Your task to perform on an android device: open chrome privacy settings Image 0: 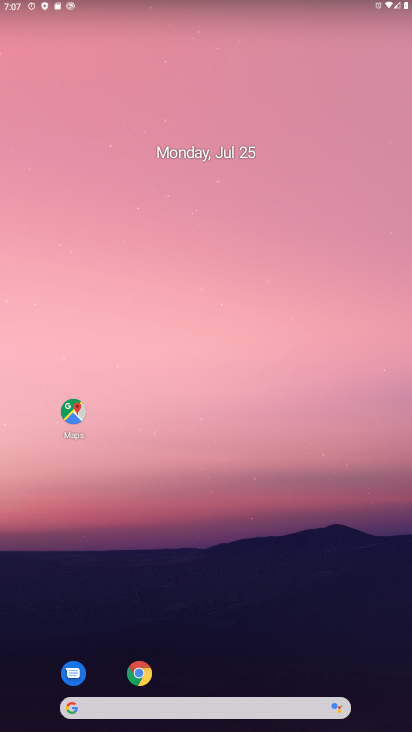
Step 0: drag from (290, 638) to (252, 45)
Your task to perform on an android device: open chrome privacy settings Image 1: 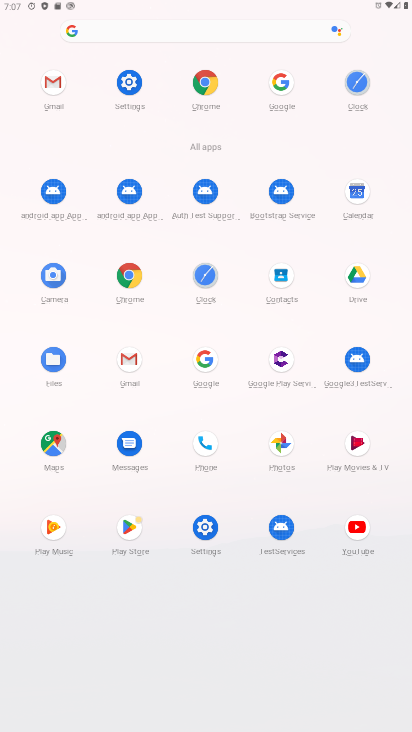
Step 1: click (117, 268)
Your task to perform on an android device: open chrome privacy settings Image 2: 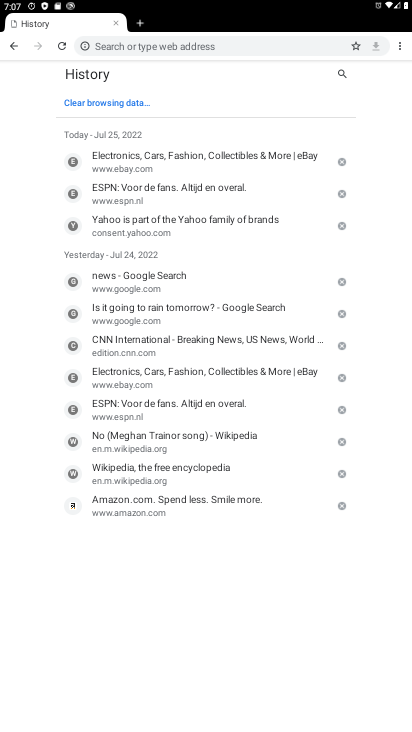
Step 2: click (401, 46)
Your task to perform on an android device: open chrome privacy settings Image 3: 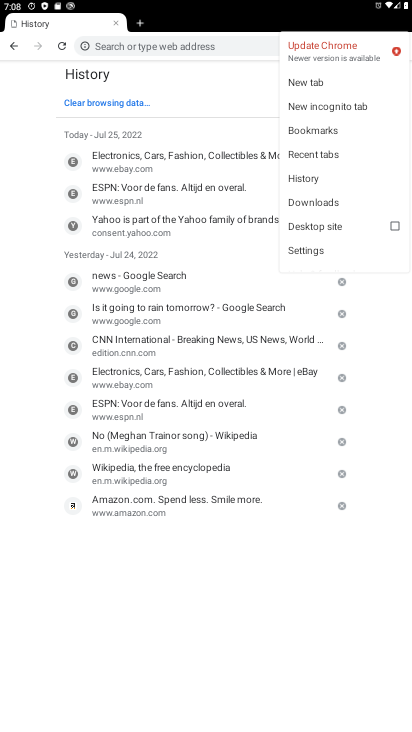
Step 3: click (296, 251)
Your task to perform on an android device: open chrome privacy settings Image 4: 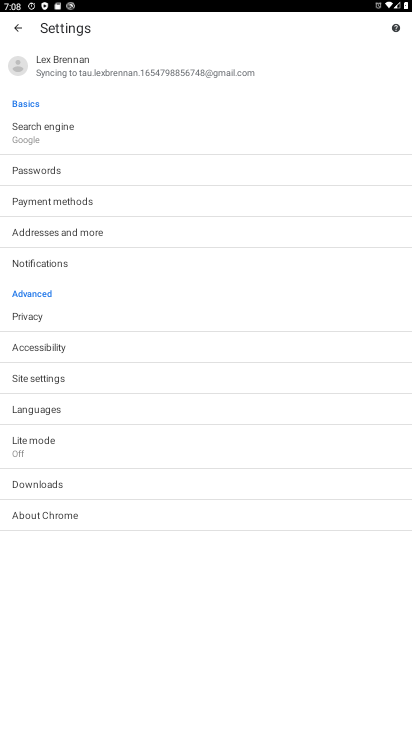
Step 4: click (52, 314)
Your task to perform on an android device: open chrome privacy settings Image 5: 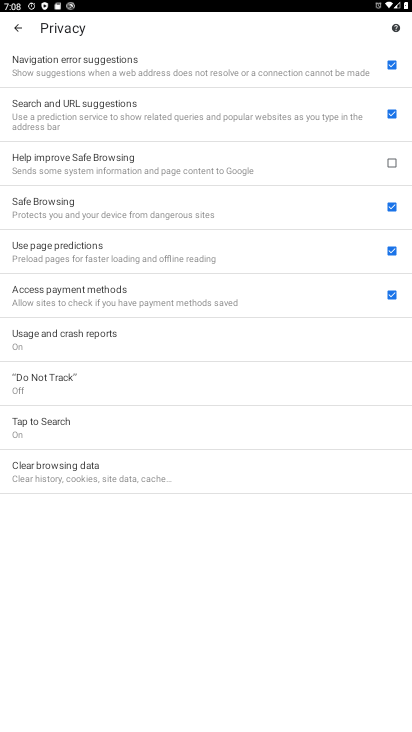
Step 5: task complete